Your task to perform on an android device: open sync settings in chrome Image 0: 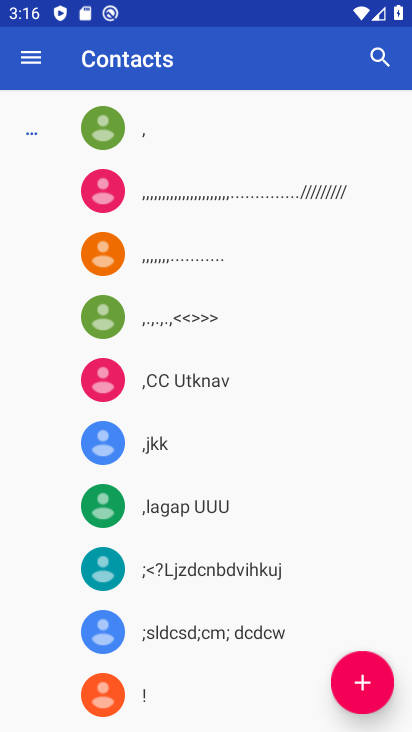
Step 0: press home button
Your task to perform on an android device: open sync settings in chrome Image 1: 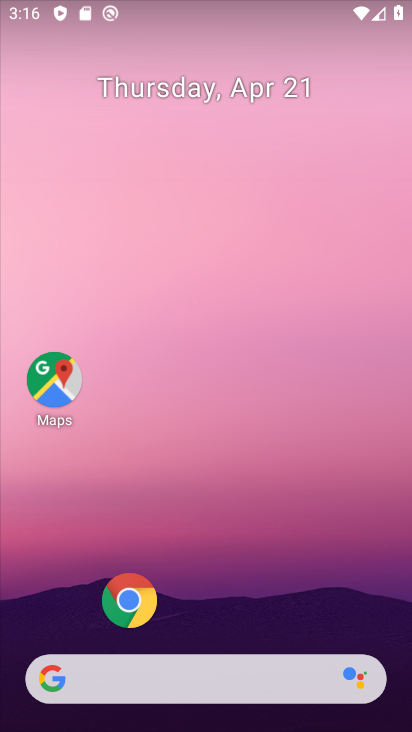
Step 1: click (139, 617)
Your task to perform on an android device: open sync settings in chrome Image 2: 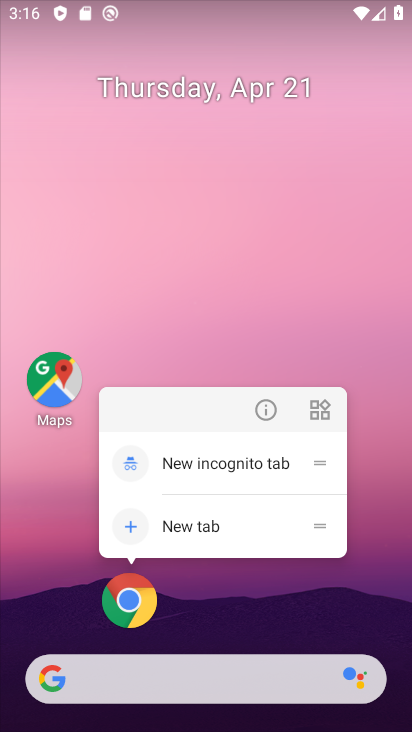
Step 2: click (267, 412)
Your task to perform on an android device: open sync settings in chrome Image 3: 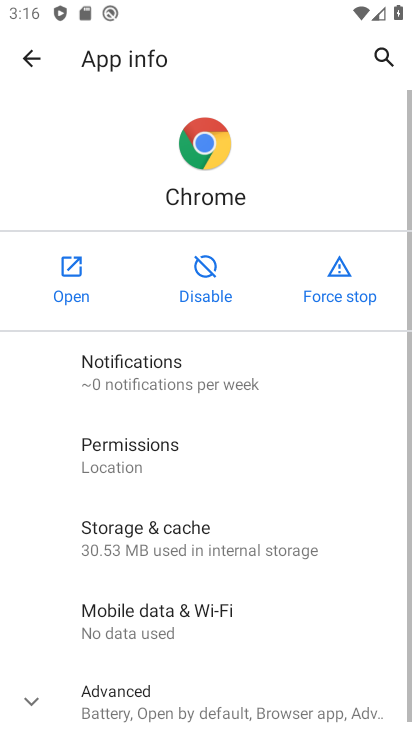
Step 3: click (66, 273)
Your task to perform on an android device: open sync settings in chrome Image 4: 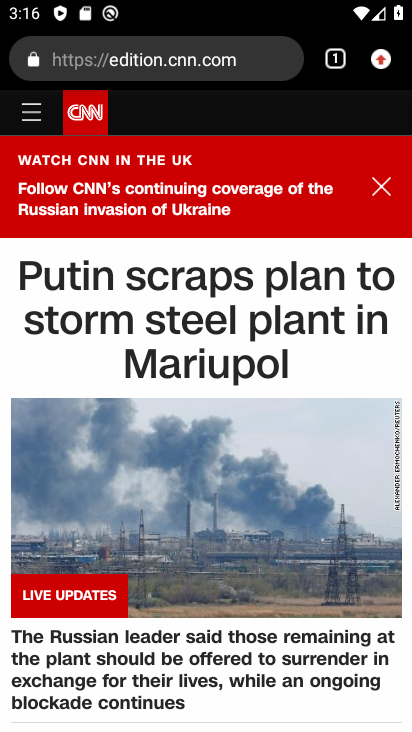
Step 4: click (379, 62)
Your task to perform on an android device: open sync settings in chrome Image 5: 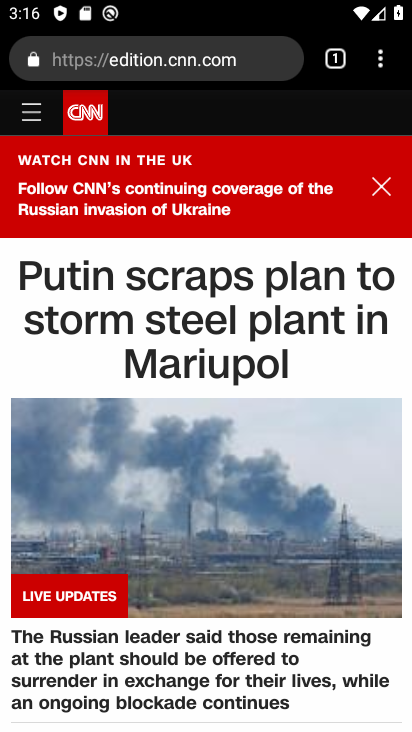
Step 5: click (381, 63)
Your task to perform on an android device: open sync settings in chrome Image 6: 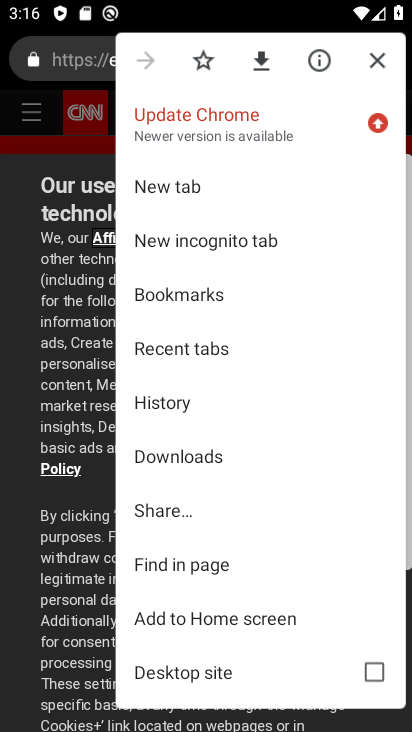
Step 6: drag from (225, 484) to (260, 300)
Your task to perform on an android device: open sync settings in chrome Image 7: 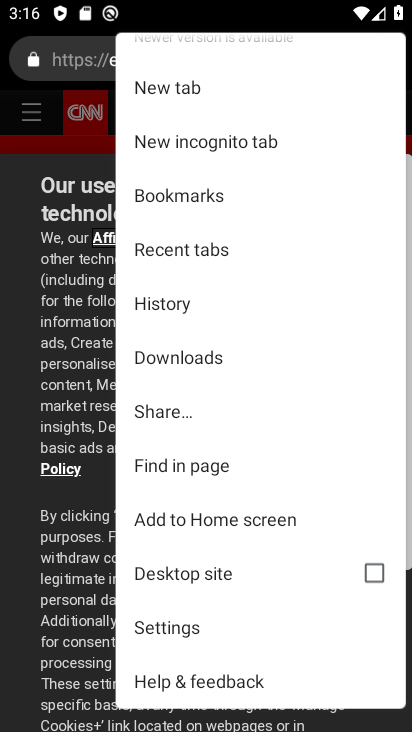
Step 7: click (201, 628)
Your task to perform on an android device: open sync settings in chrome Image 8: 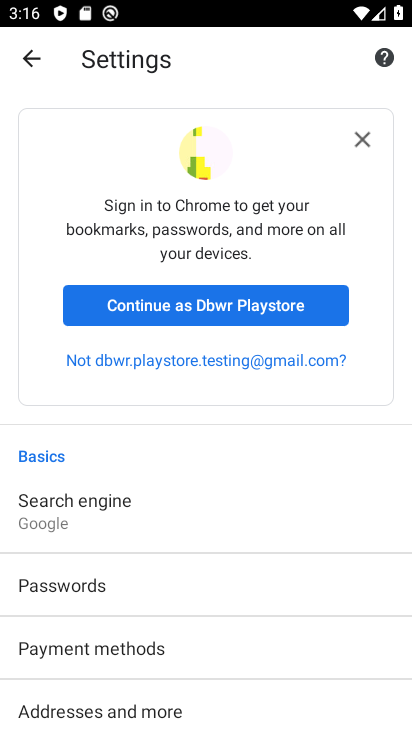
Step 8: click (218, 309)
Your task to perform on an android device: open sync settings in chrome Image 9: 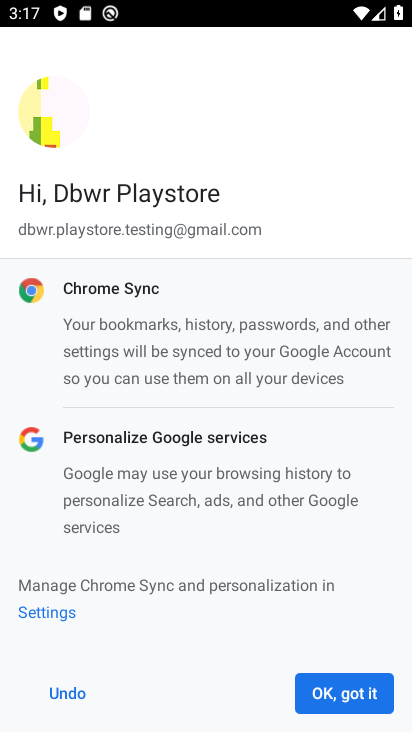
Step 9: click (354, 691)
Your task to perform on an android device: open sync settings in chrome Image 10: 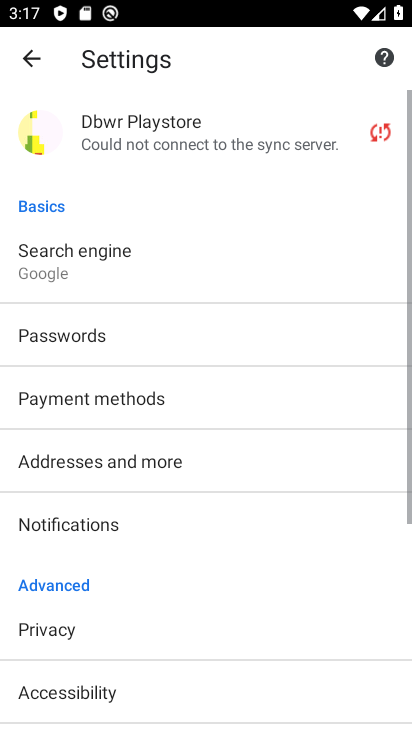
Step 10: click (241, 152)
Your task to perform on an android device: open sync settings in chrome Image 11: 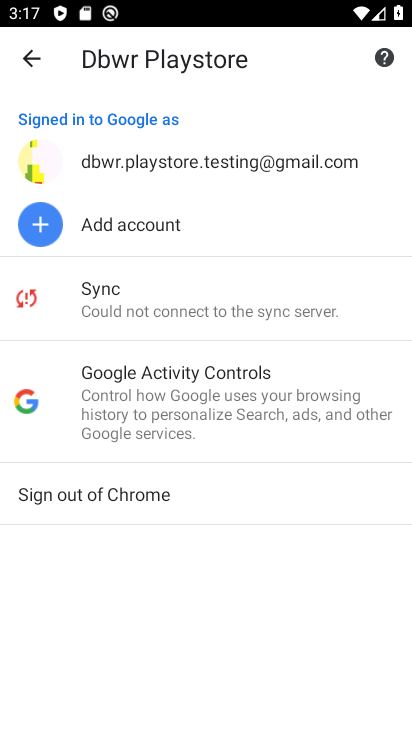
Step 11: click (222, 318)
Your task to perform on an android device: open sync settings in chrome Image 12: 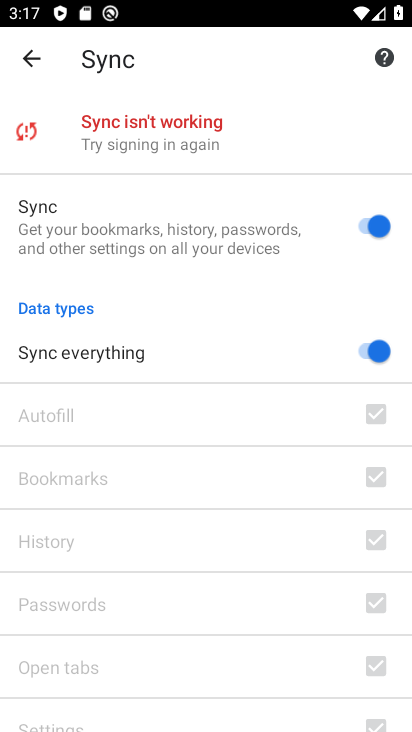
Step 12: click (179, 124)
Your task to perform on an android device: open sync settings in chrome Image 13: 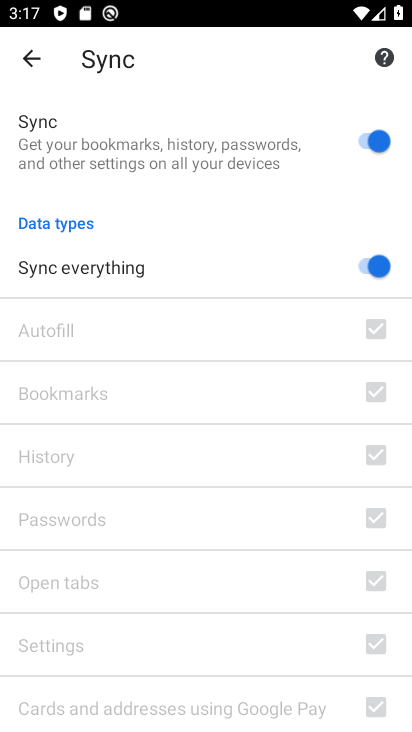
Step 13: task complete